Your task to perform on an android device: turn on the 24-hour format for clock Image 0: 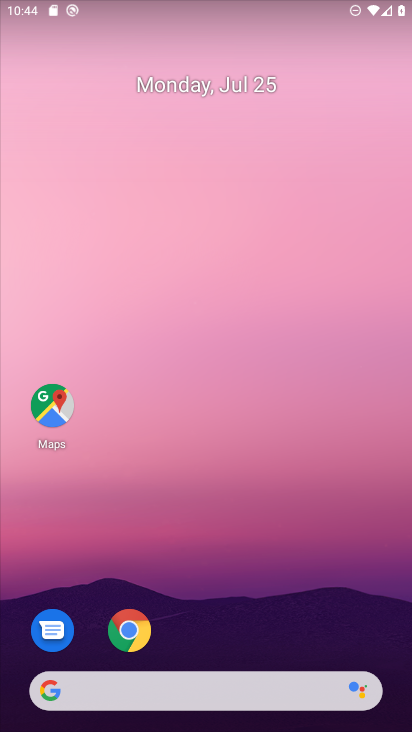
Step 0: drag from (344, 627) to (298, 114)
Your task to perform on an android device: turn on the 24-hour format for clock Image 1: 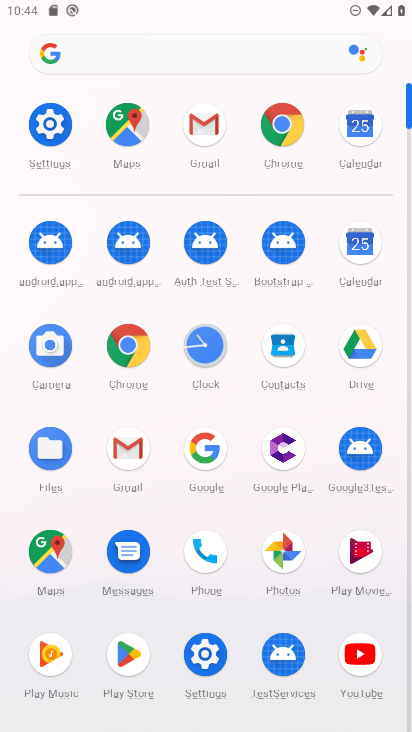
Step 1: click (208, 341)
Your task to perform on an android device: turn on the 24-hour format for clock Image 2: 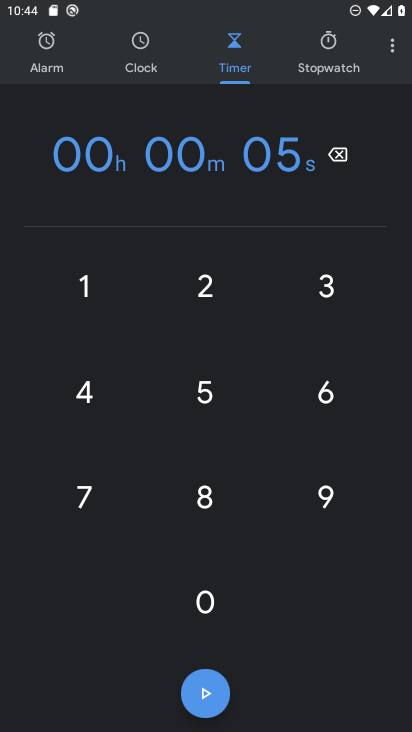
Step 2: click (395, 44)
Your task to perform on an android device: turn on the 24-hour format for clock Image 3: 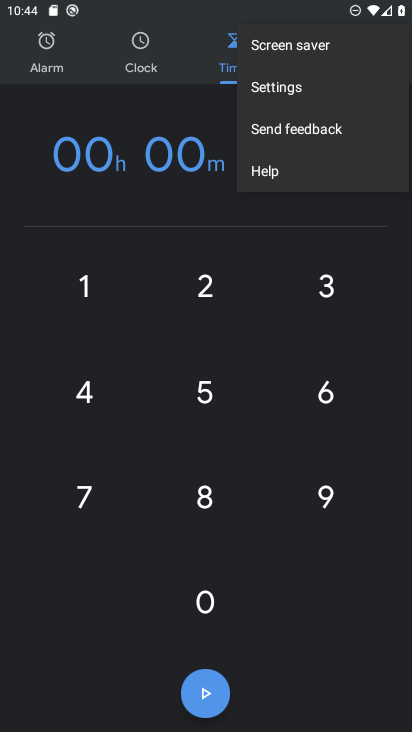
Step 3: click (314, 97)
Your task to perform on an android device: turn on the 24-hour format for clock Image 4: 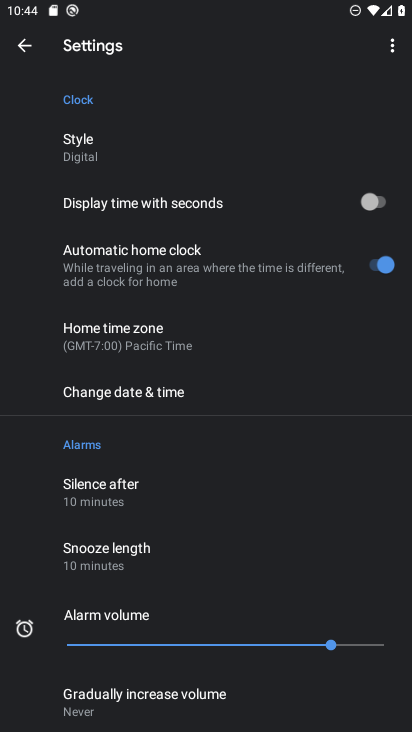
Step 4: click (136, 397)
Your task to perform on an android device: turn on the 24-hour format for clock Image 5: 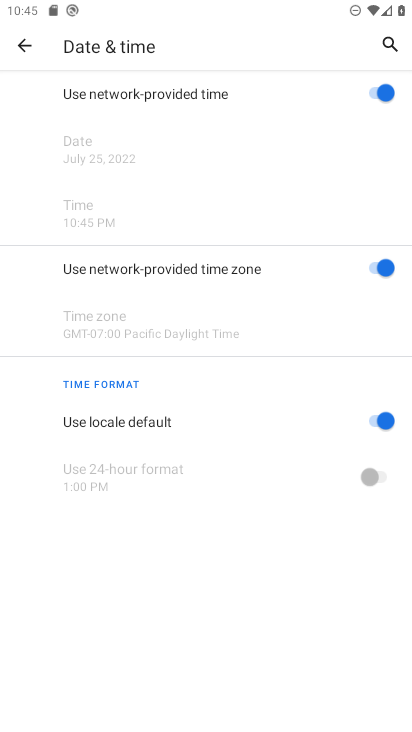
Step 5: click (381, 419)
Your task to perform on an android device: turn on the 24-hour format for clock Image 6: 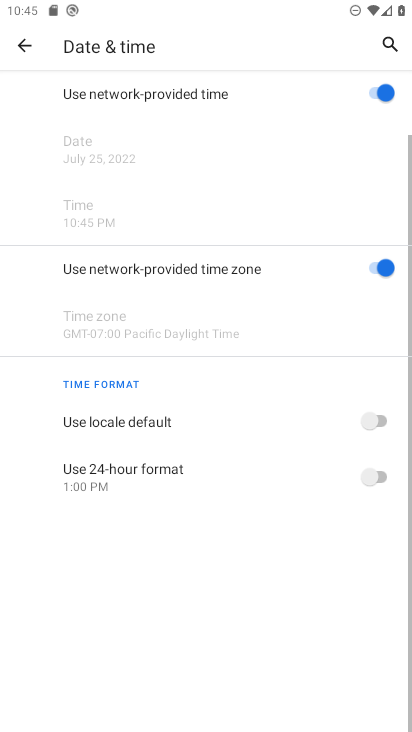
Step 6: click (371, 484)
Your task to perform on an android device: turn on the 24-hour format for clock Image 7: 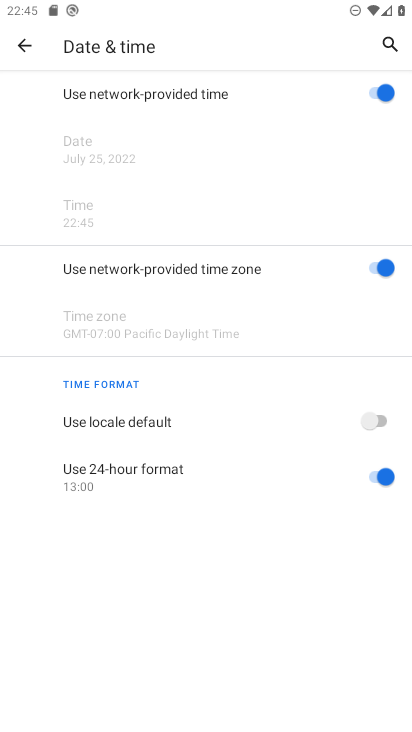
Step 7: task complete